Your task to perform on an android device: turn off location Image 0: 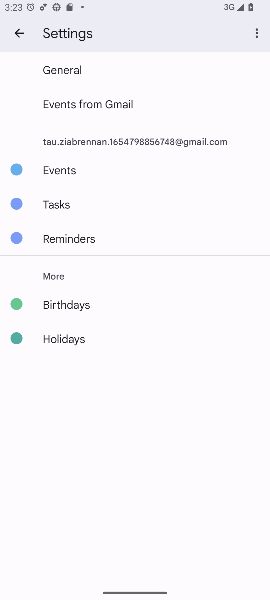
Step 0: press home button
Your task to perform on an android device: turn off location Image 1: 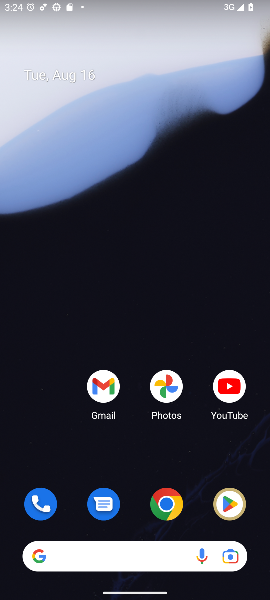
Step 1: drag from (139, 484) to (147, 45)
Your task to perform on an android device: turn off location Image 2: 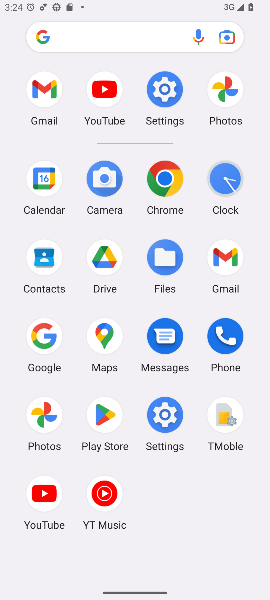
Step 2: click (166, 87)
Your task to perform on an android device: turn off location Image 3: 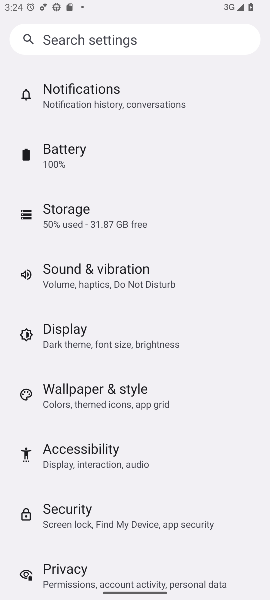
Step 3: drag from (188, 455) to (183, 219)
Your task to perform on an android device: turn off location Image 4: 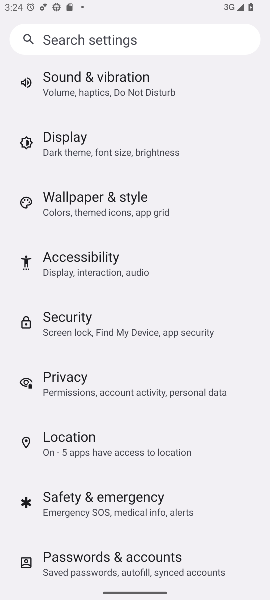
Step 4: click (78, 437)
Your task to perform on an android device: turn off location Image 5: 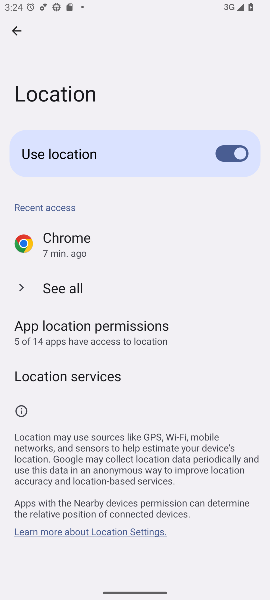
Step 5: click (237, 145)
Your task to perform on an android device: turn off location Image 6: 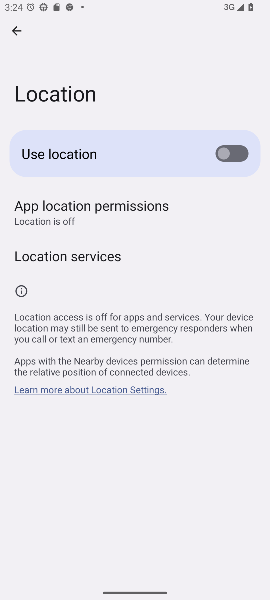
Step 6: task complete